Your task to perform on an android device: turn on notifications settings in the gmail app Image 0: 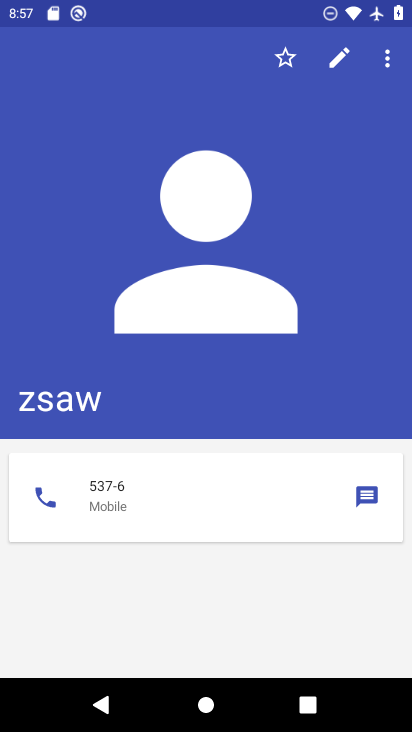
Step 0: press home button
Your task to perform on an android device: turn on notifications settings in the gmail app Image 1: 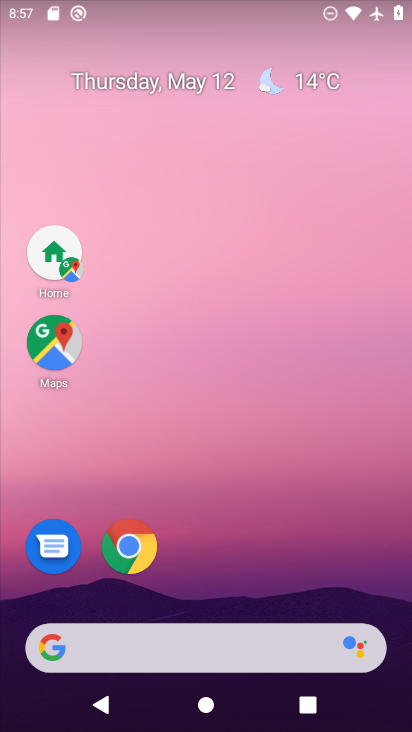
Step 1: drag from (171, 657) to (316, 149)
Your task to perform on an android device: turn on notifications settings in the gmail app Image 2: 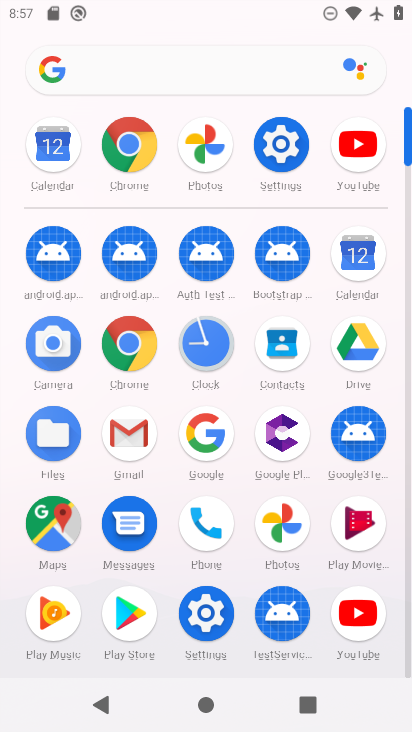
Step 2: click (123, 448)
Your task to perform on an android device: turn on notifications settings in the gmail app Image 3: 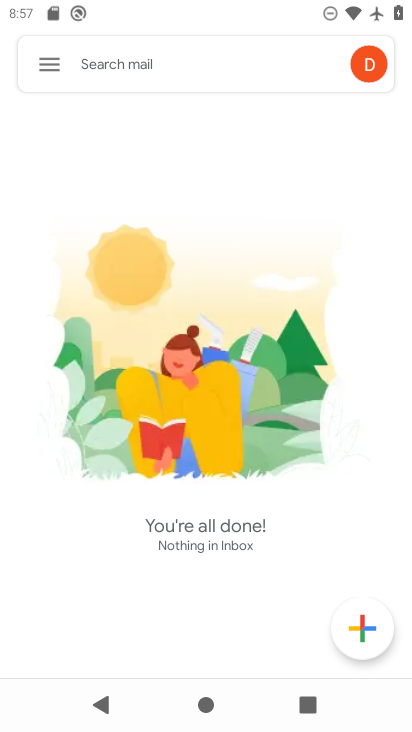
Step 3: click (53, 63)
Your task to perform on an android device: turn on notifications settings in the gmail app Image 4: 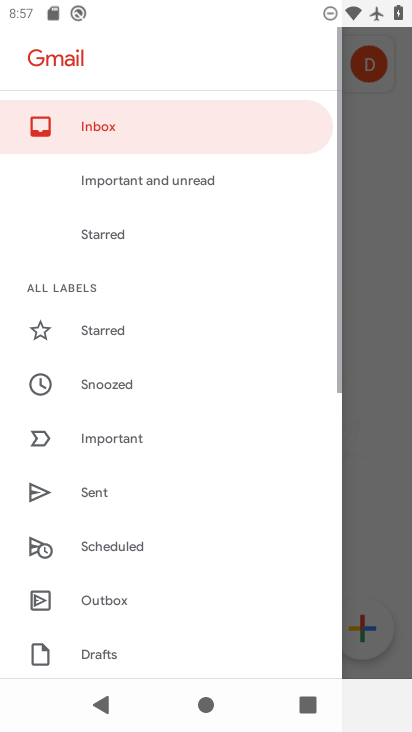
Step 4: drag from (174, 593) to (281, 89)
Your task to perform on an android device: turn on notifications settings in the gmail app Image 5: 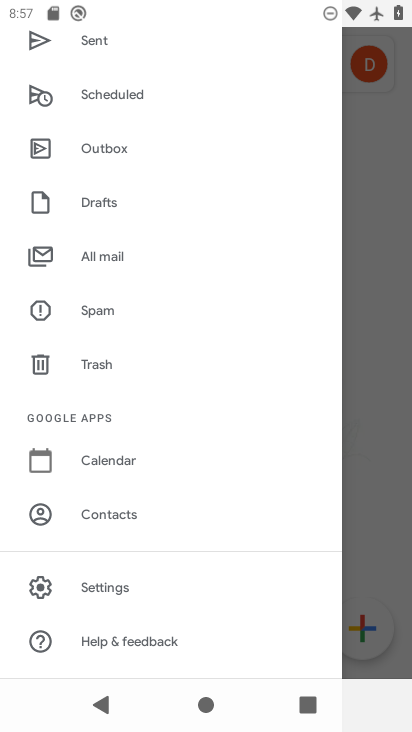
Step 5: click (109, 584)
Your task to perform on an android device: turn on notifications settings in the gmail app Image 6: 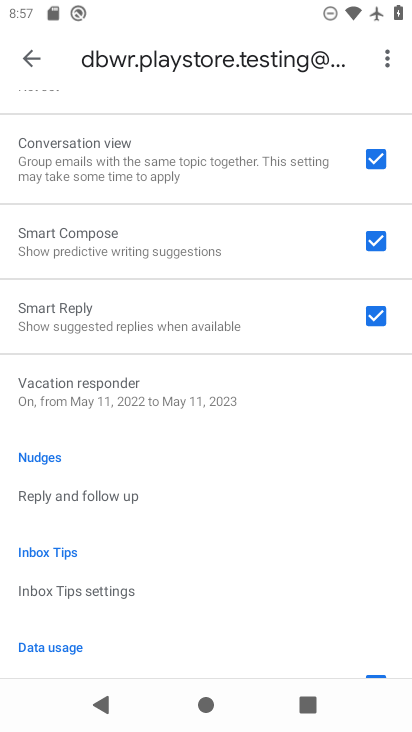
Step 6: drag from (285, 154) to (215, 579)
Your task to perform on an android device: turn on notifications settings in the gmail app Image 7: 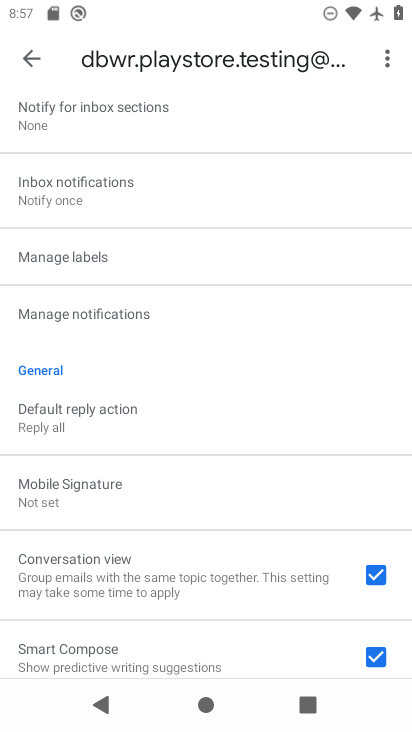
Step 7: drag from (275, 219) to (209, 506)
Your task to perform on an android device: turn on notifications settings in the gmail app Image 8: 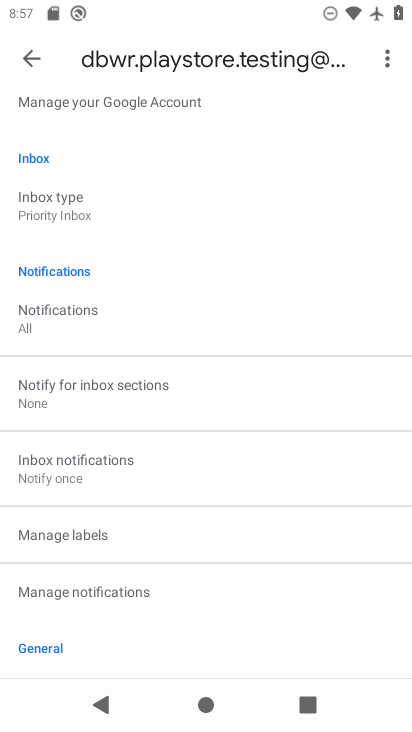
Step 8: click (40, 326)
Your task to perform on an android device: turn on notifications settings in the gmail app Image 9: 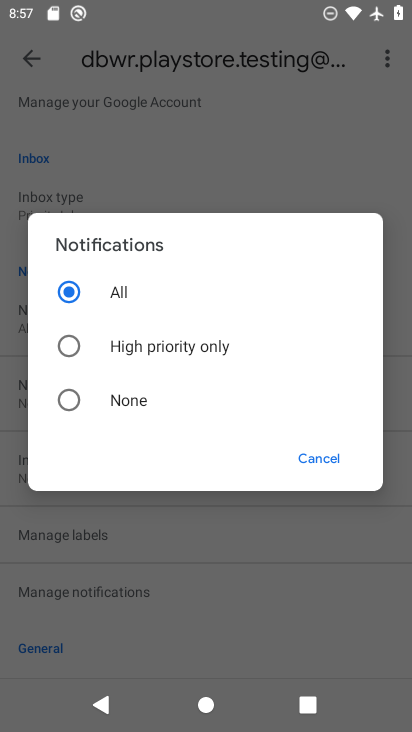
Step 9: task complete